Your task to perform on an android device: What is the recent news? Image 0: 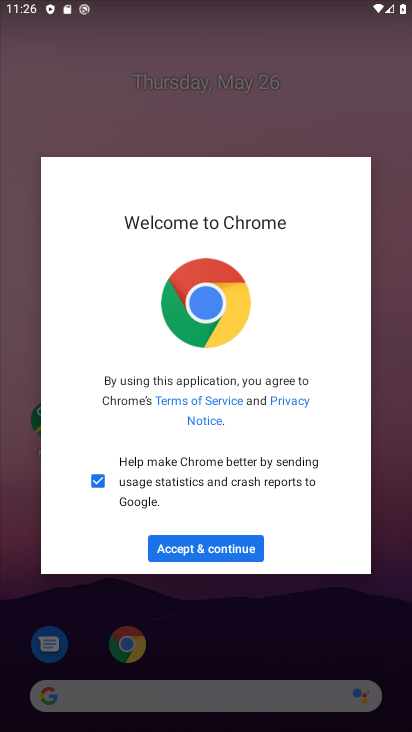
Step 0: click (250, 644)
Your task to perform on an android device: What is the recent news? Image 1: 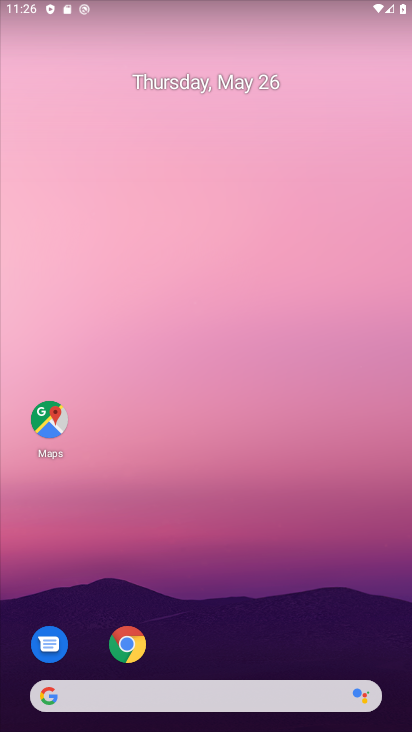
Step 1: drag from (260, 637) to (129, 8)
Your task to perform on an android device: What is the recent news? Image 2: 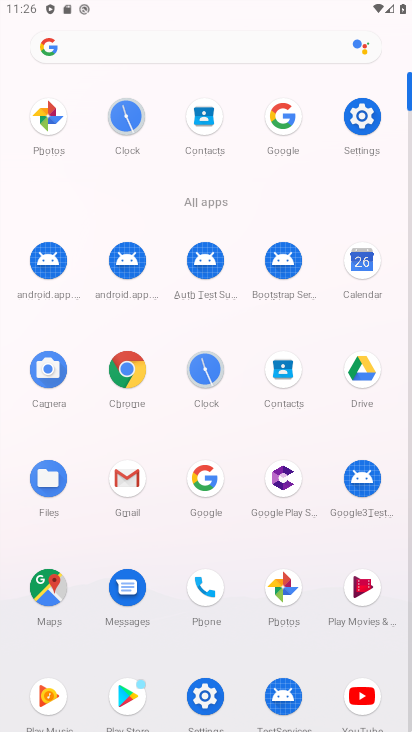
Step 2: click (211, 481)
Your task to perform on an android device: What is the recent news? Image 3: 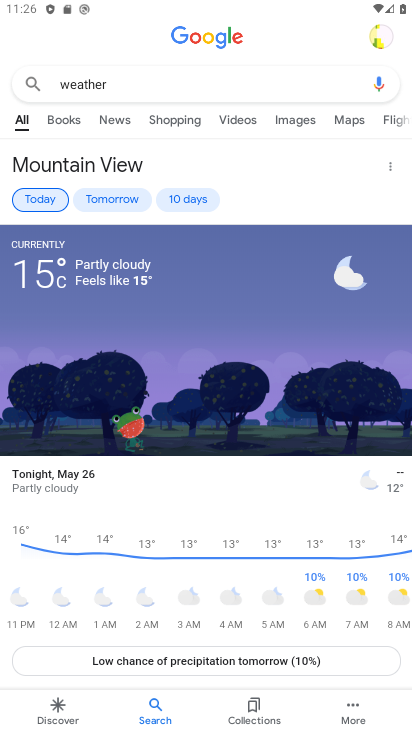
Step 3: click (135, 79)
Your task to perform on an android device: What is the recent news? Image 4: 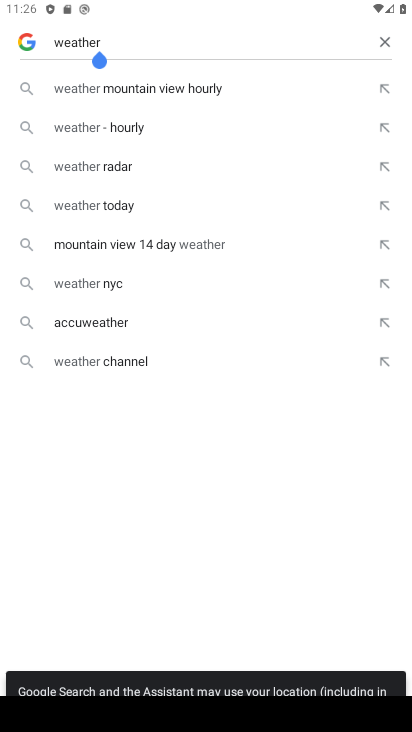
Step 4: click (387, 42)
Your task to perform on an android device: What is the recent news? Image 5: 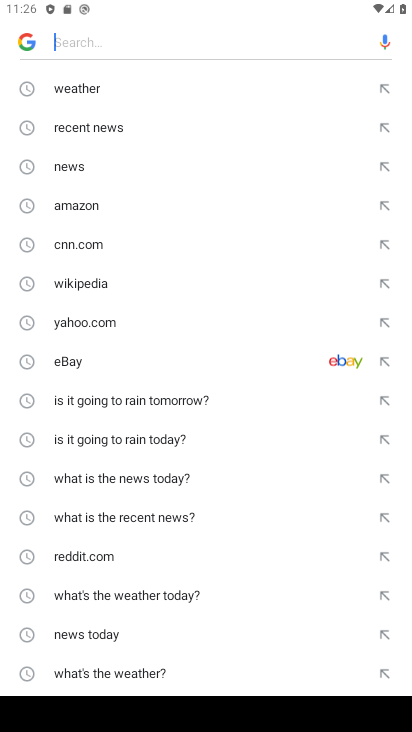
Step 5: click (110, 165)
Your task to perform on an android device: What is the recent news? Image 6: 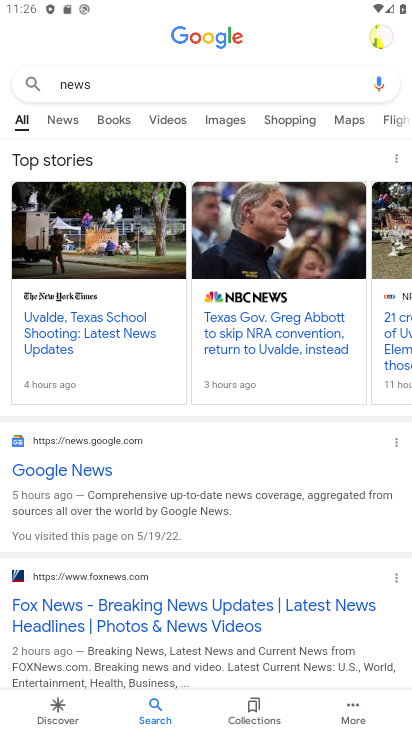
Step 6: task complete